Your task to perform on an android device: turn notification dots on Image 0: 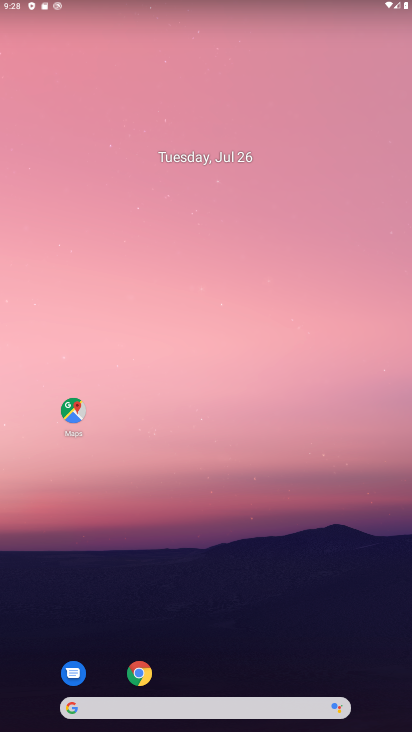
Step 0: drag from (23, 696) to (247, 105)
Your task to perform on an android device: turn notification dots on Image 1: 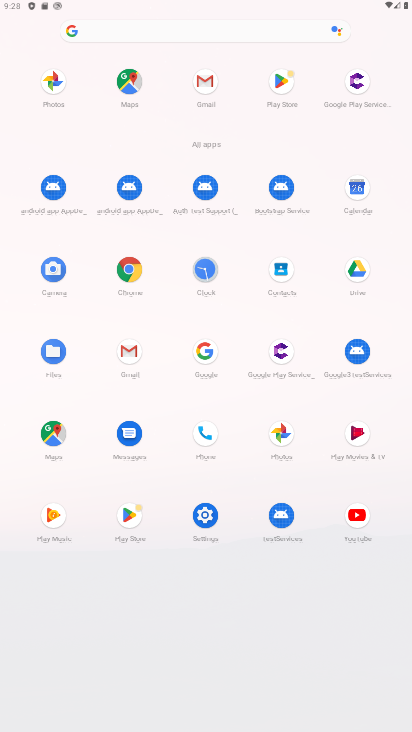
Step 1: click (209, 516)
Your task to perform on an android device: turn notification dots on Image 2: 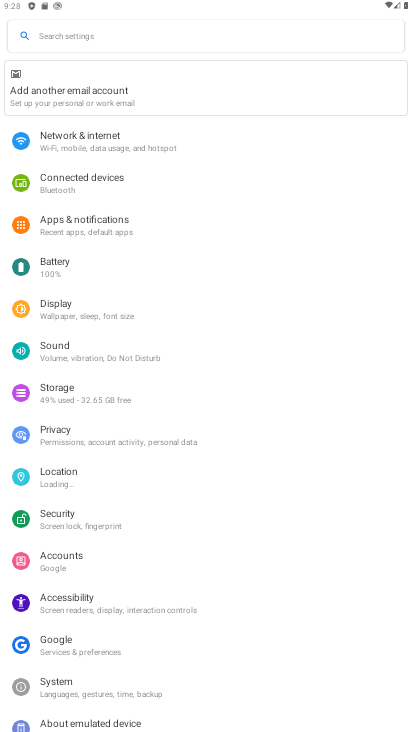
Step 2: click (121, 229)
Your task to perform on an android device: turn notification dots on Image 3: 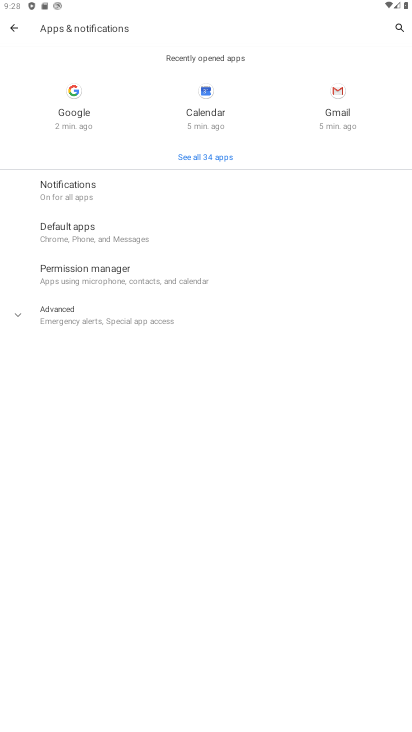
Step 3: click (71, 184)
Your task to perform on an android device: turn notification dots on Image 4: 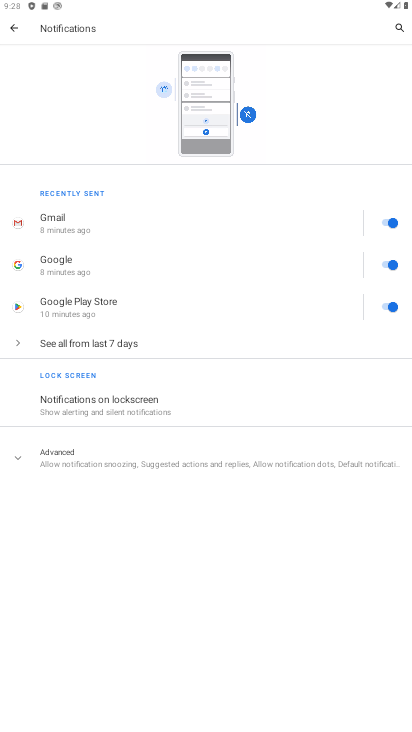
Step 4: click (105, 457)
Your task to perform on an android device: turn notification dots on Image 5: 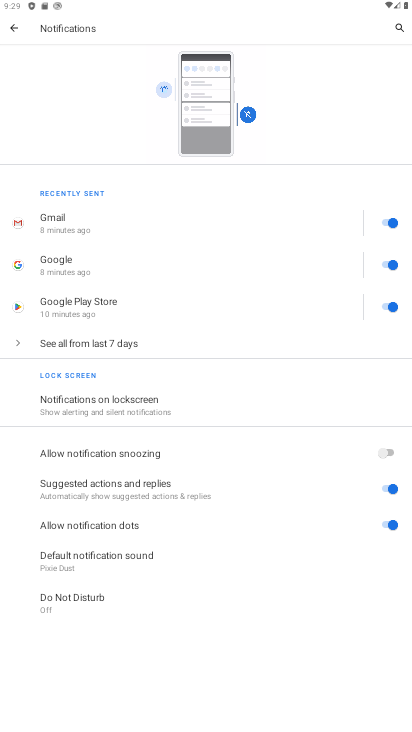
Step 5: task complete